Your task to perform on an android device: Open Maps and search for coffee Image 0: 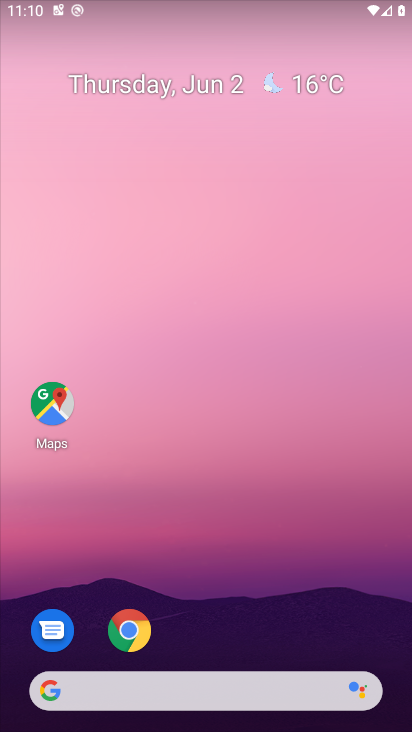
Step 0: click (65, 412)
Your task to perform on an android device: Open Maps and search for coffee Image 1: 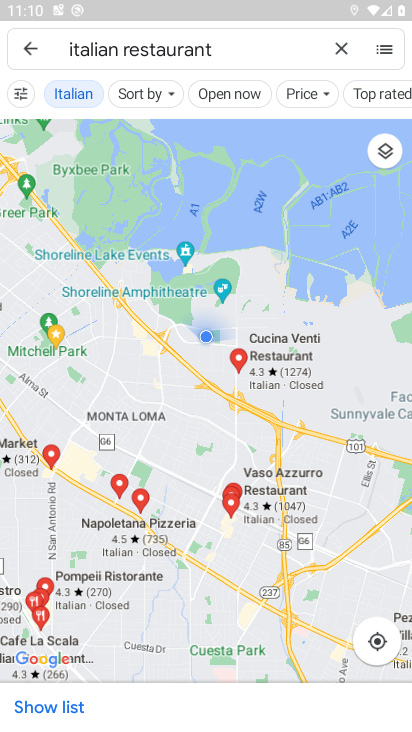
Step 1: click (336, 45)
Your task to perform on an android device: Open Maps and search for coffee Image 2: 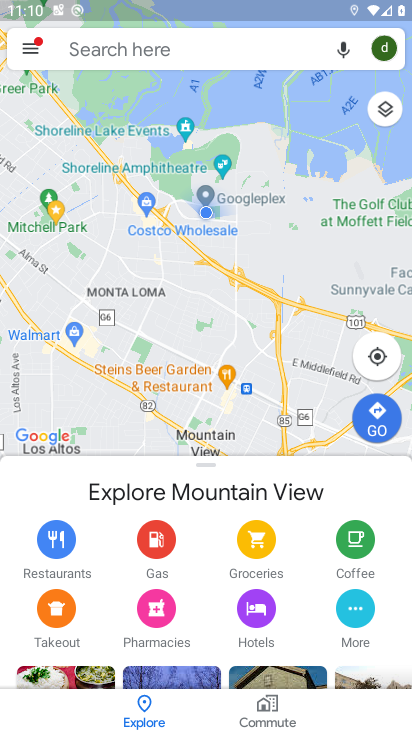
Step 2: click (215, 53)
Your task to perform on an android device: Open Maps and search for coffee Image 3: 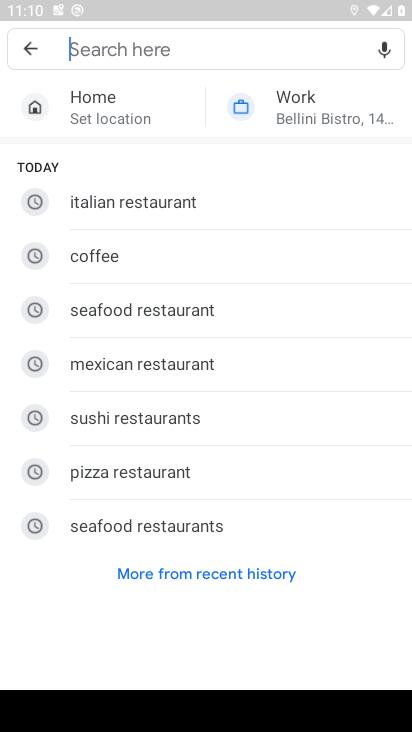
Step 3: type "coffee"
Your task to perform on an android device: Open Maps and search for coffee Image 4: 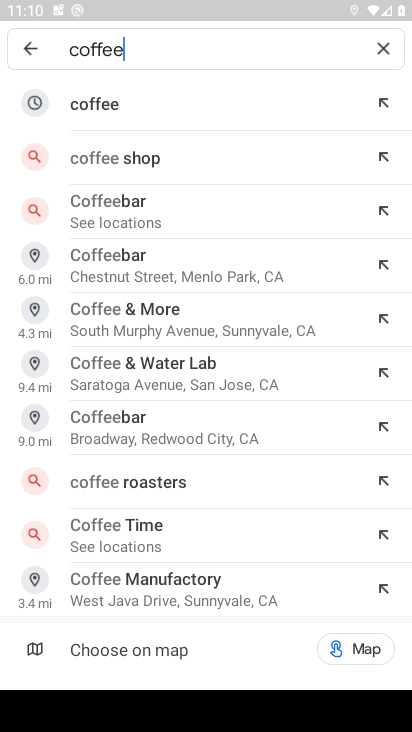
Step 4: click (140, 104)
Your task to perform on an android device: Open Maps and search for coffee Image 5: 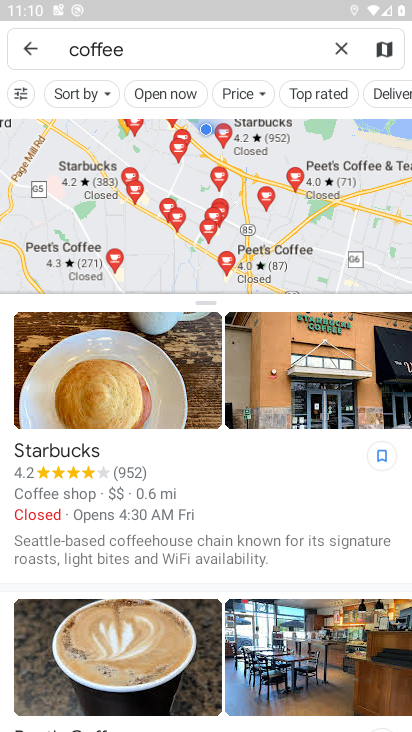
Step 5: task complete